Your task to perform on an android device: open app "Google Keep" Image 0: 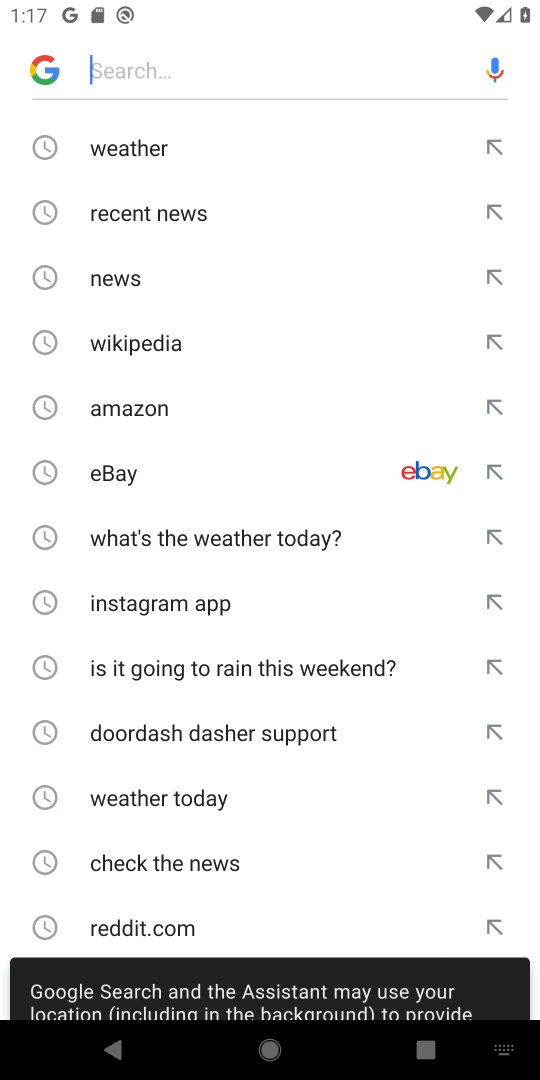
Step 0: press home button
Your task to perform on an android device: open app "Google Keep" Image 1: 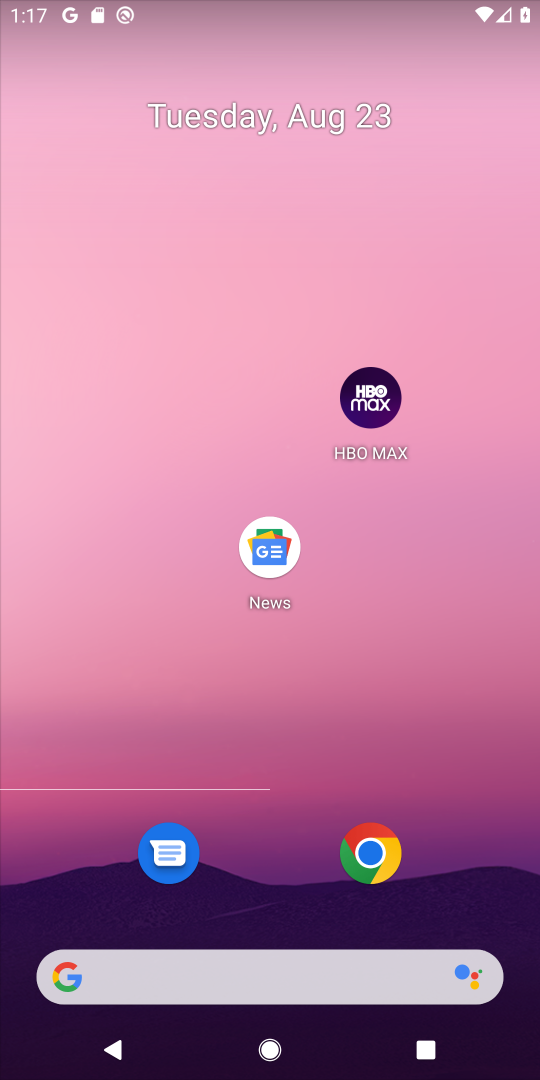
Step 1: drag from (516, 887) to (460, 165)
Your task to perform on an android device: open app "Google Keep" Image 2: 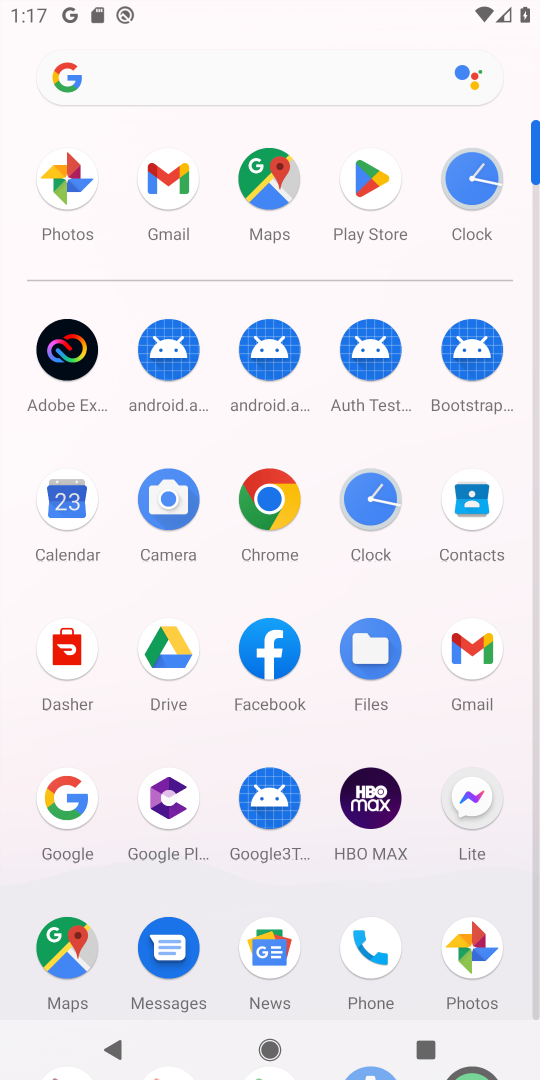
Step 2: drag from (422, 894) to (411, 461)
Your task to perform on an android device: open app "Google Keep" Image 3: 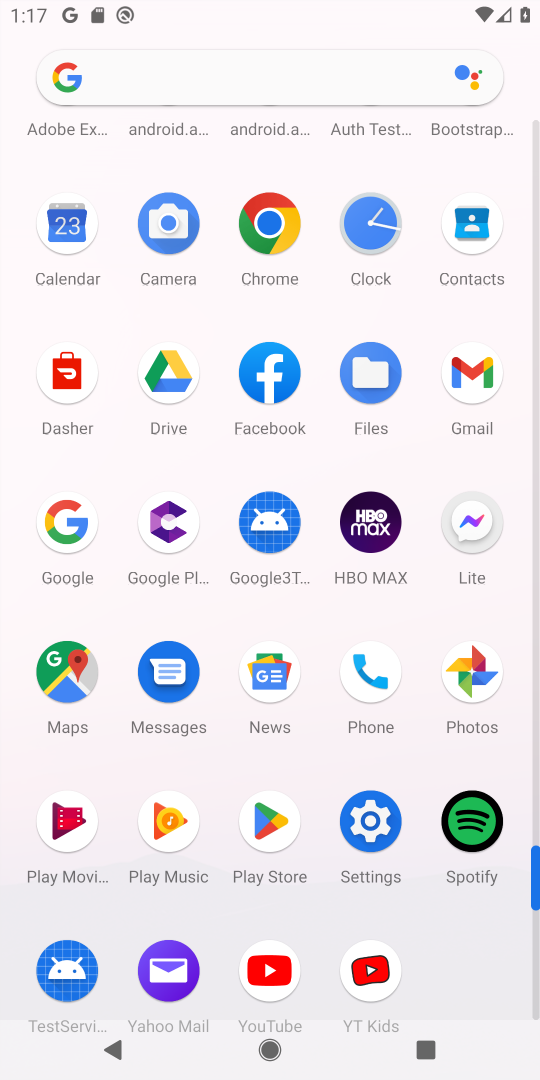
Step 3: click (272, 824)
Your task to perform on an android device: open app "Google Keep" Image 4: 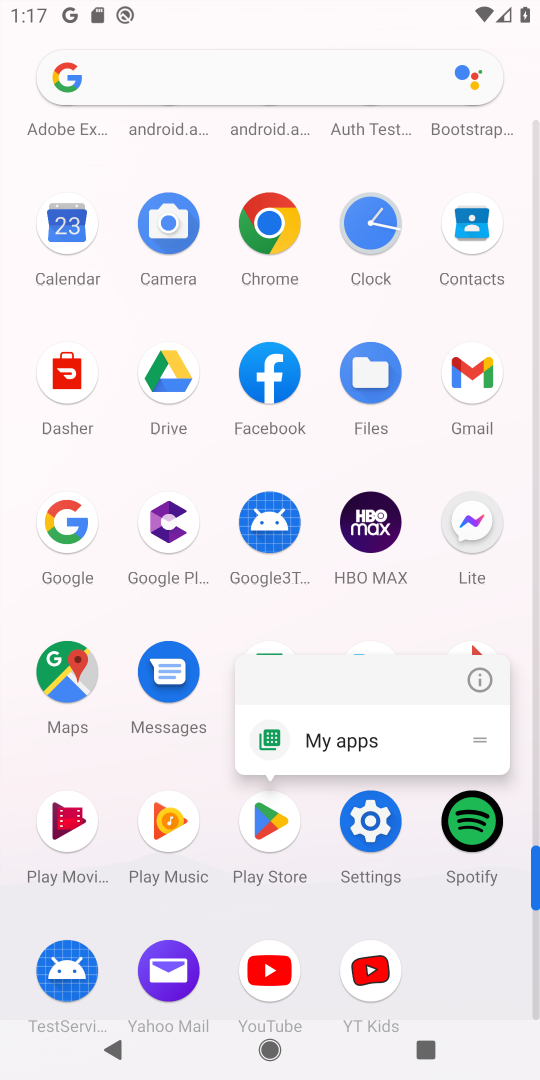
Step 4: click (272, 824)
Your task to perform on an android device: open app "Google Keep" Image 5: 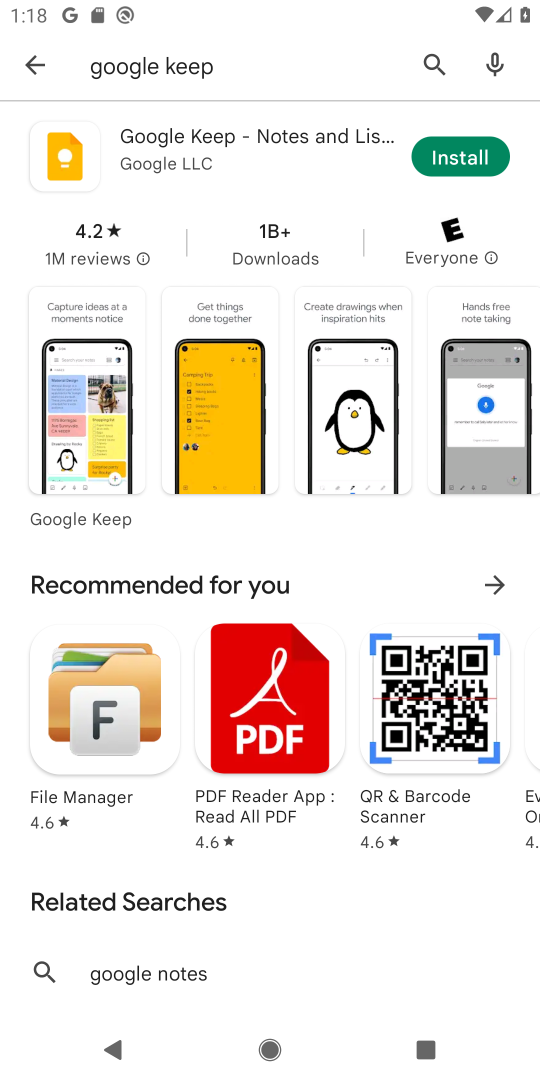
Step 5: task complete